Your task to perform on an android device: Go to eBay Image 0: 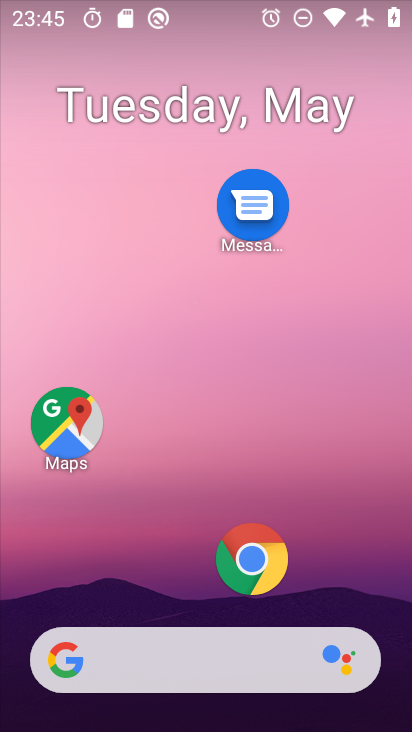
Step 0: click (238, 554)
Your task to perform on an android device: Go to eBay Image 1: 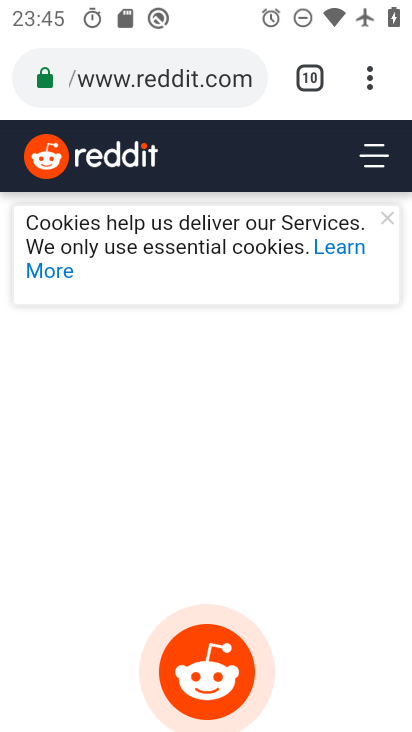
Step 1: click (312, 63)
Your task to perform on an android device: Go to eBay Image 2: 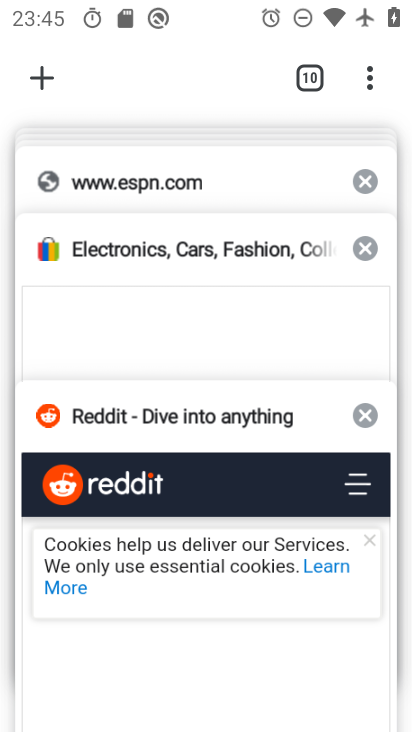
Step 2: click (33, 74)
Your task to perform on an android device: Go to eBay Image 3: 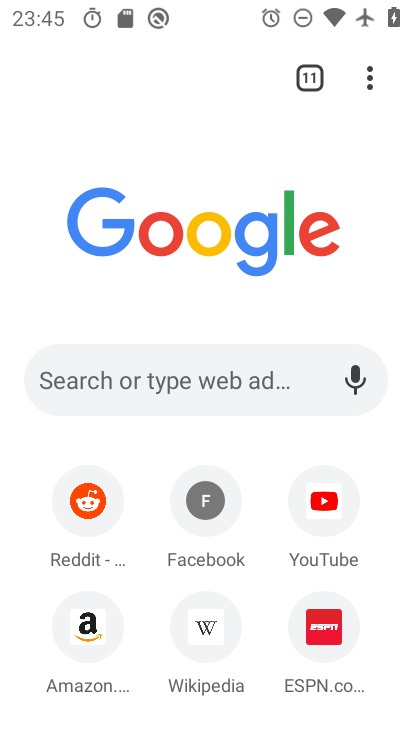
Step 3: click (198, 374)
Your task to perform on an android device: Go to eBay Image 4: 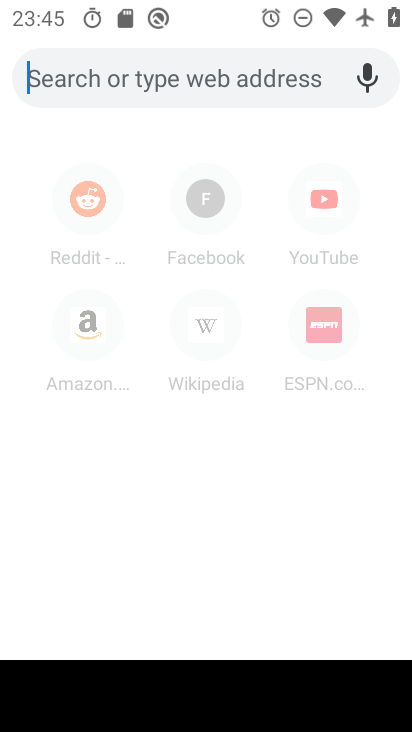
Step 4: type "eBay"
Your task to perform on an android device: Go to eBay Image 5: 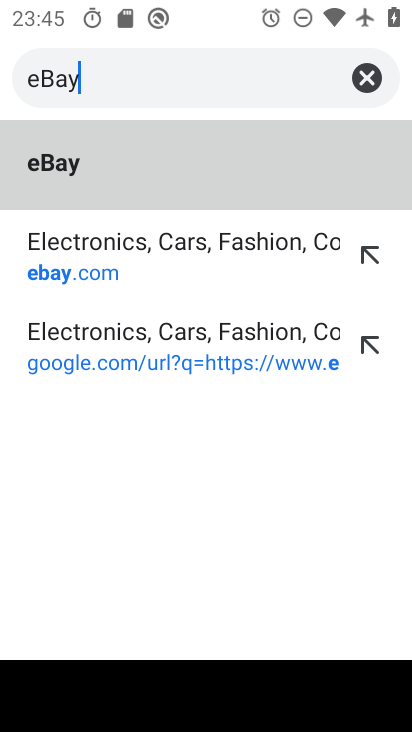
Step 5: click (222, 173)
Your task to perform on an android device: Go to eBay Image 6: 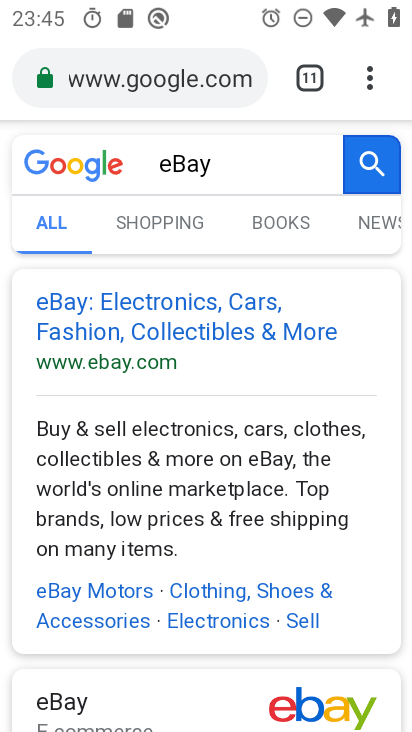
Step 6: click (181, 307)
Your task to perform on an android device: Go to eBay Image 7: 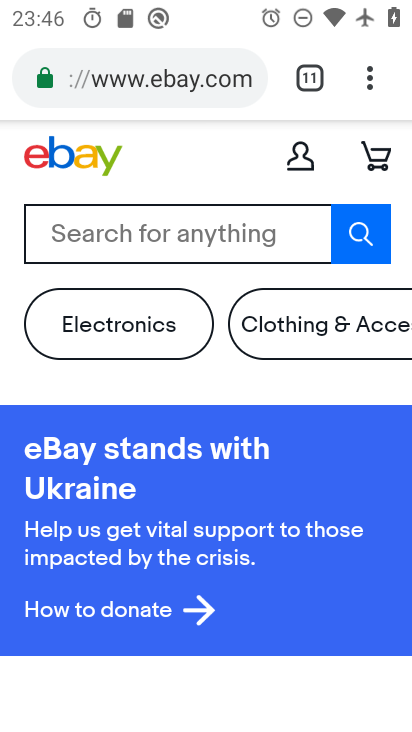
Step 7: task complete